Your task to perform on an android device: toggle notifications settings in the gmail app Image 0: 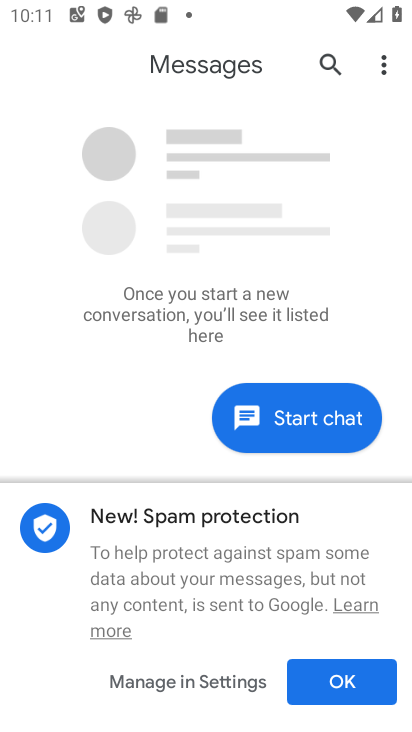
Step 0: press home button
Your task to perform on an android device: toggle notifications settings in the gmail app Image 1: 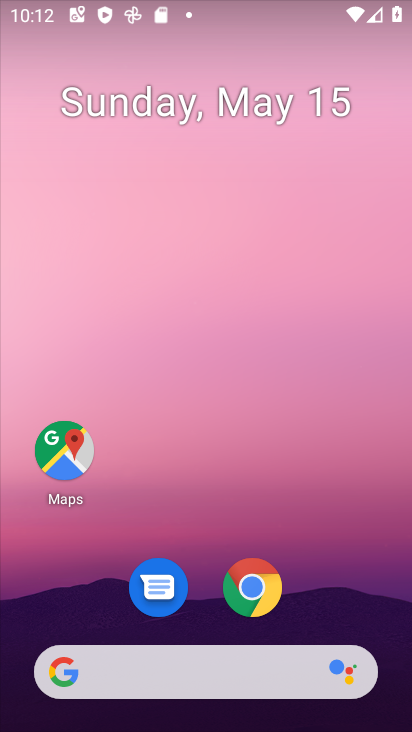
Step 1: drag from (358, 582) to (233, 21)
Your task to perform on an android device: toggle notifications settings in the gmail app Image 2: 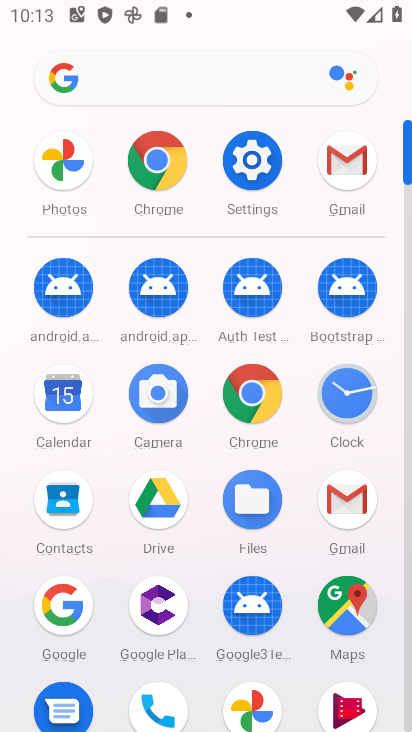
Step 2: click (337, 505)
Your task to perform on an android device: toggle notifications settings in the gmail app Image 3: 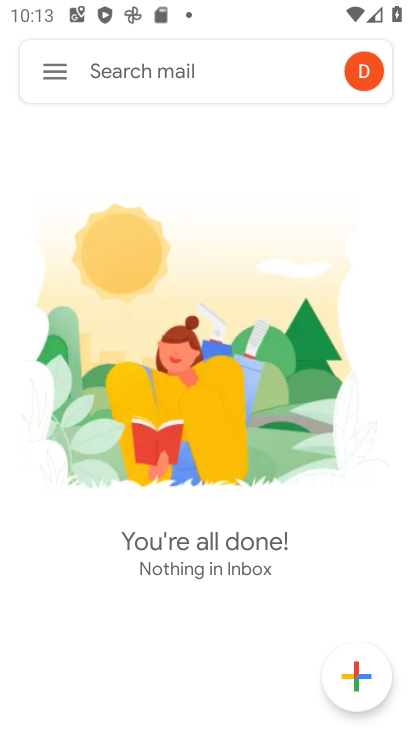
Step 3: click (49, 74)
Your task to perform on an android device: toggle notifications settings in the gmail app Image 4: 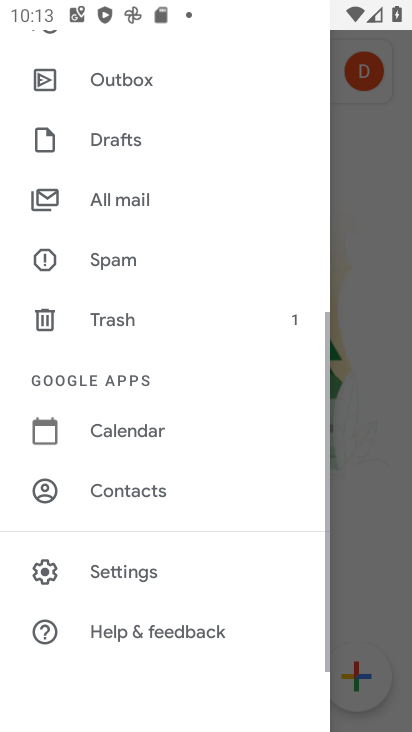
Step 4: click (159, 574)
Your task to perform on an android device: toggle notifications settings in the gmail app Image 5: 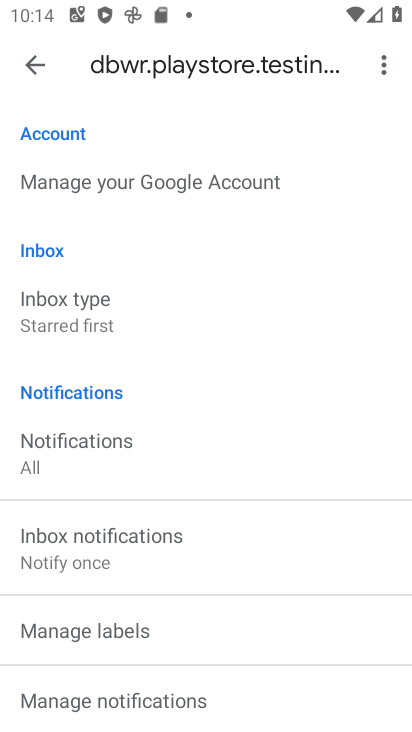
Step 5: click (101, 432)
Your task to perform on an android device: toggle notifications settings in the gmail app Image 6: 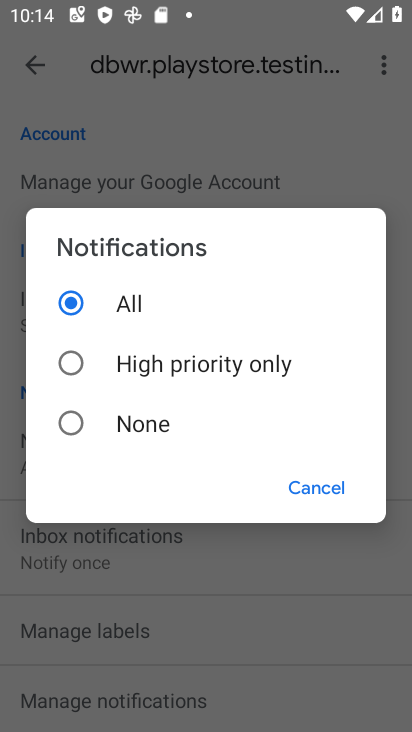
Step 6: click (101, 420)
Your task to perform on an android device: toggle notifications settings in the gmail app Image 7: 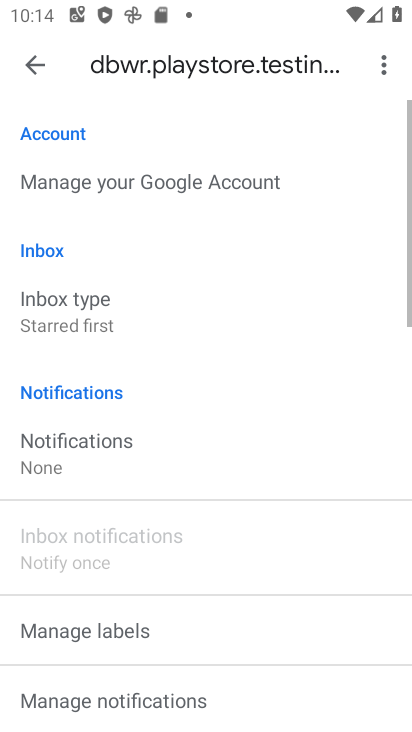
Step 7: task complete